Your task to perform on an android device: Open the calendar and show me this week's events? Image 0: 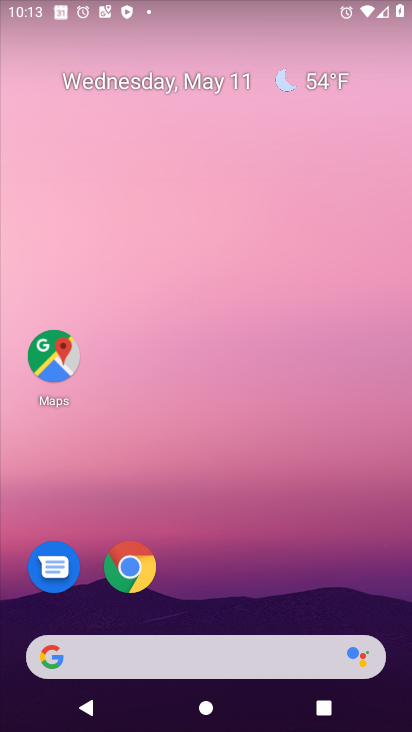
Step 0: drag from (217, 564) to (305, 1)
Your task to perform on an android device: Open the calendar and show me this week's events? Image 1: 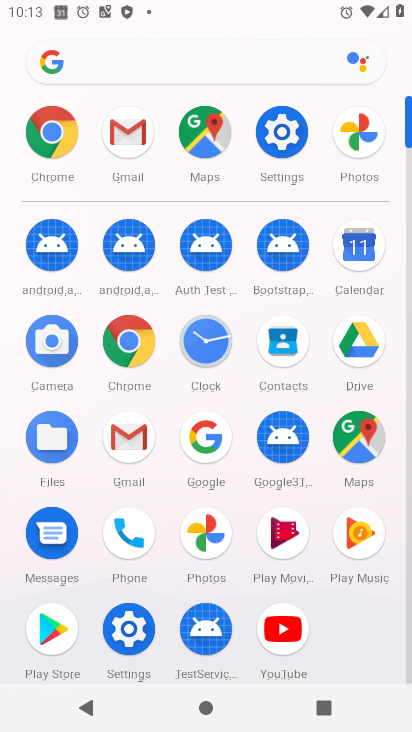
Step 1: click (347, 252)
Your task to perform on an android device: Open the calendar and show me this week's events? Image 2: 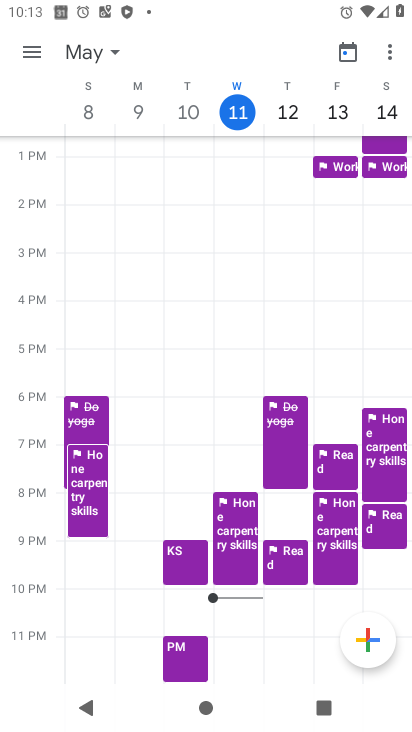
Step 2: task complete